Your task to perform on an android device: snooze an email in the gmail app Image 0: 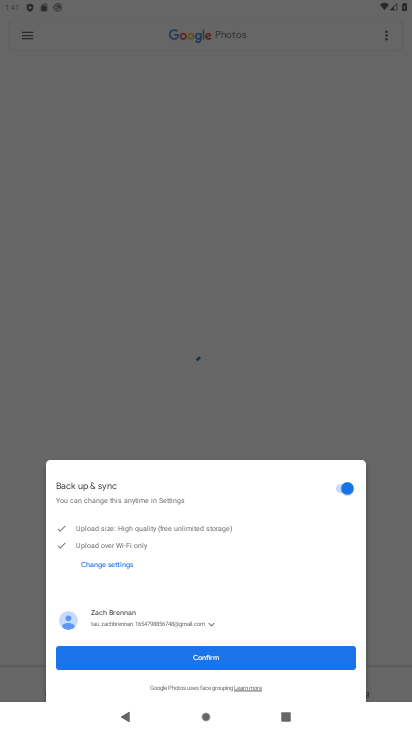
Step 0: press home button
Your task to perform on an android device: snooze an email in the gmail app Image 1: 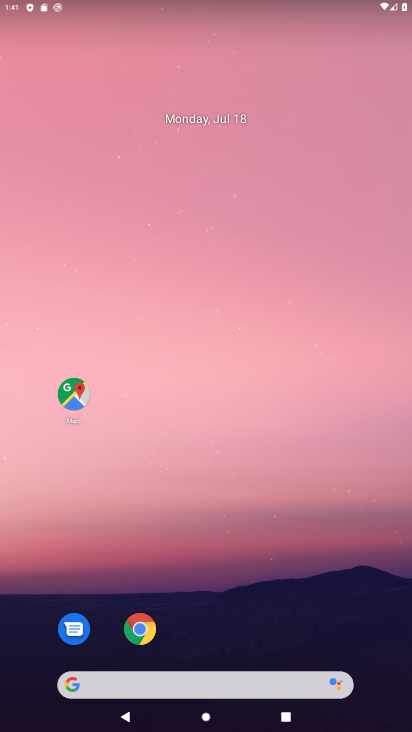
Step 1: drag from (198, 615) to (137, 226)
Your task to perform on an android device: snooze an email in the gmail app Image 2: 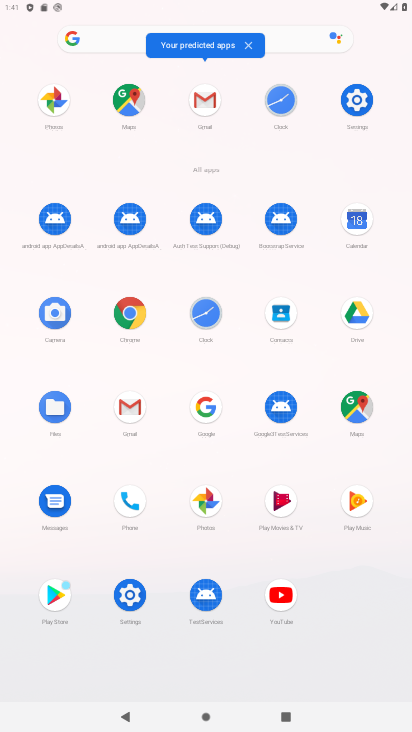
Step 2: click (195, 98)
Your task to perform on an android device: snooze an email in the gmail app Image 3: 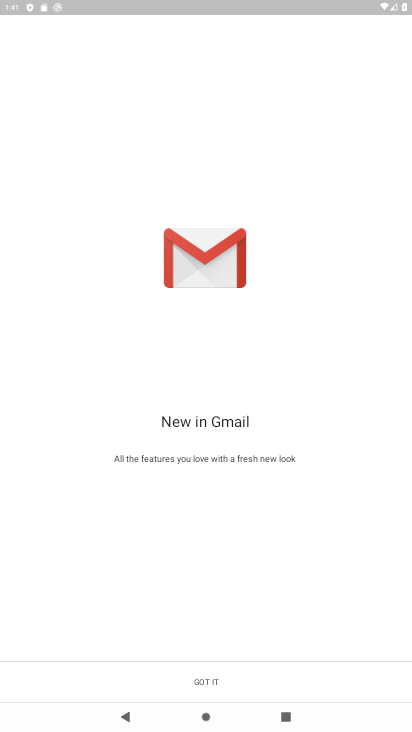
Step 3: click (286, 665)
Your task to perform on an android device: snooze an email in the gmail app Image 4: 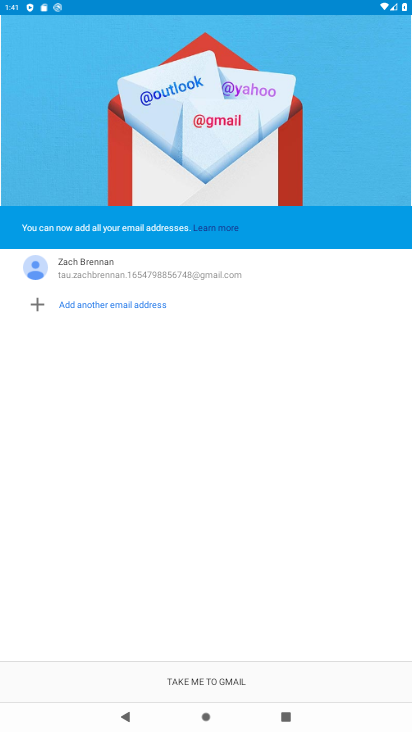
Step 4: click (285, 664)
Your task to perform on an android device: snooze an email in the gmail app Image 5: 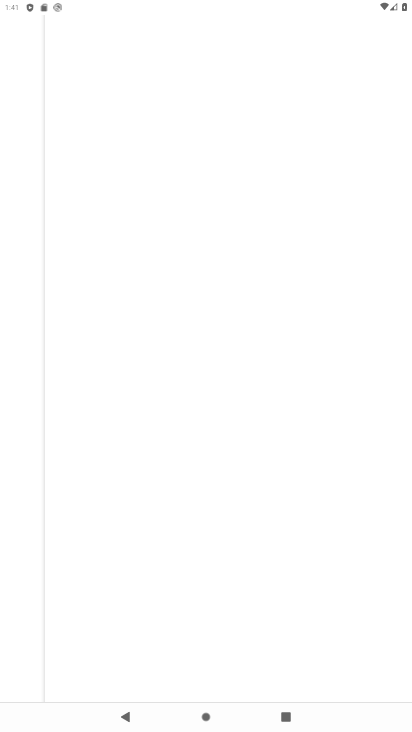
Step 5: click (285, 664)
Your task to perform on an android device: snooze an email in the gmail app Image 6: 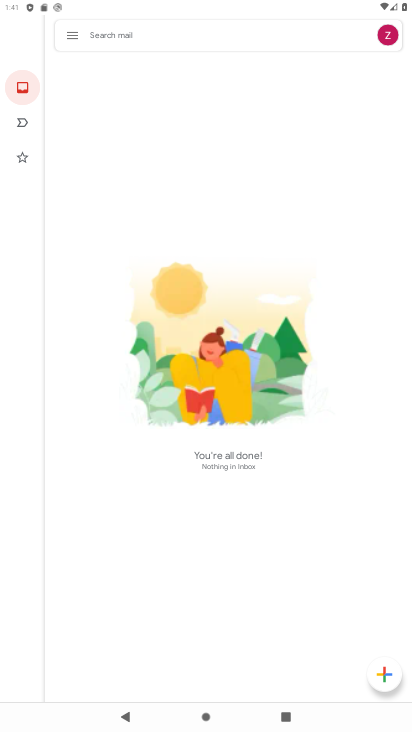
Step 6: click (68, 26)
Your task to perform on an android device: snooze an email in the gmail app Image 7: 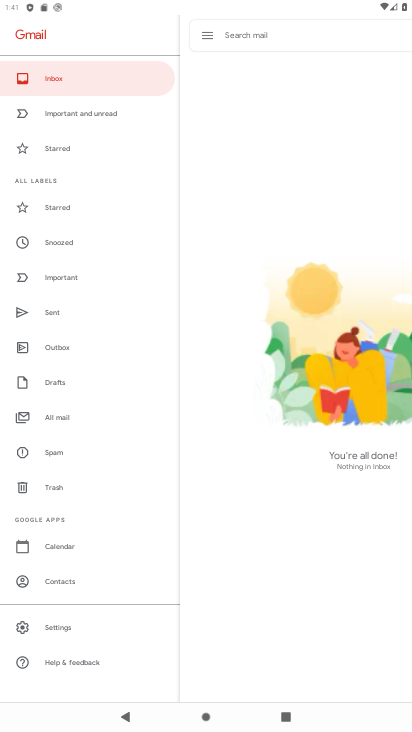
Step 7: click (58, 69)
Your task to perform on an android device: snooze an email in the gmail app Image 8: 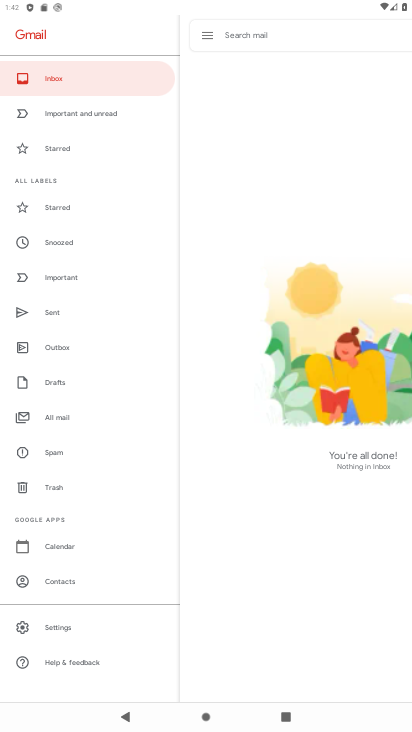
Step 8: task complete